Your task to perform on an android device: empty trash in google photos Image 0: 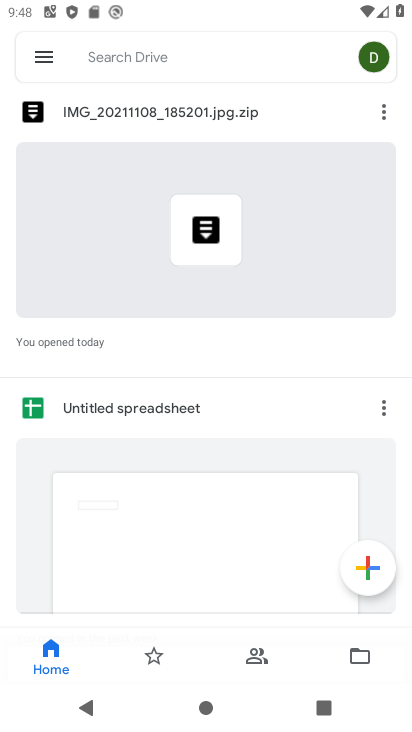
Step 0: press back button
Your task to perform on an android device: empty trash in google photos Image 1: 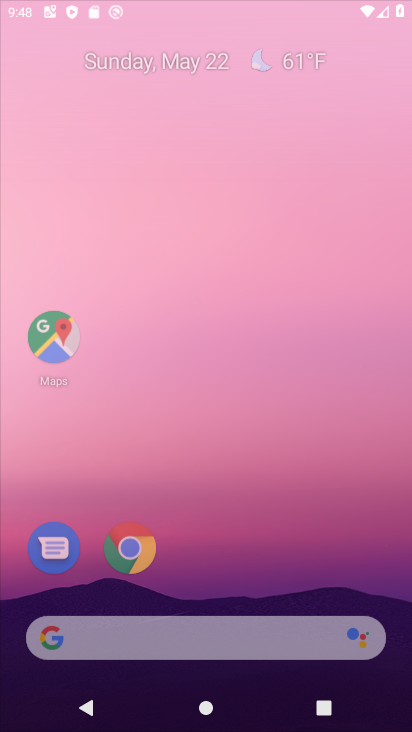
Step 1: press home button
Your task to perform on an android device: empty trash in google photos Image 2: 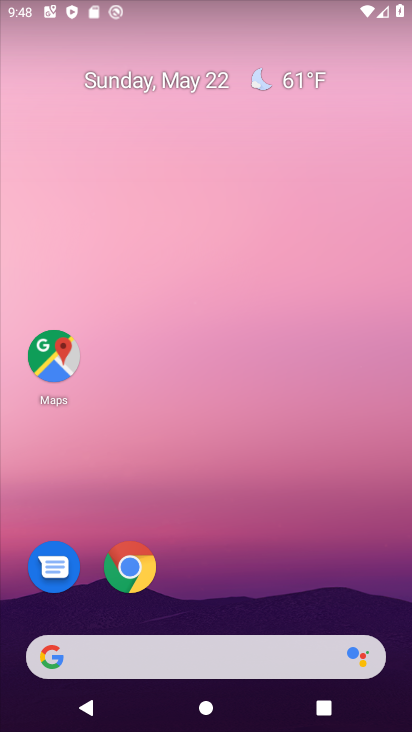
Step 2: drag from (227, 624) to (187, 52)
Your task to perform on an android device: empty trash in google photos Image 3: 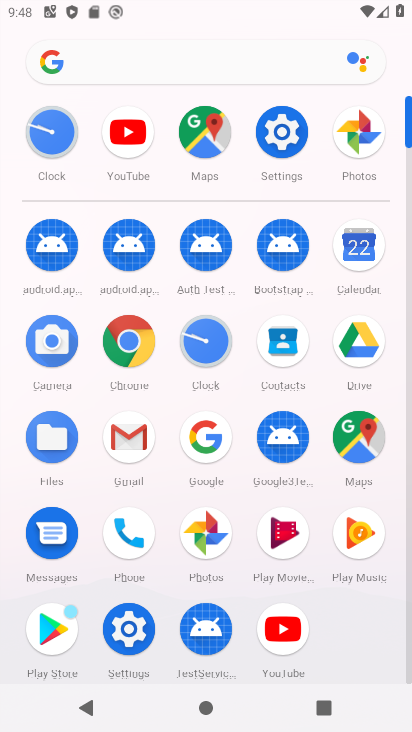
Step 3: click (199, 542)
Your task to perform on an android device: empty trash in google photos Image 4: 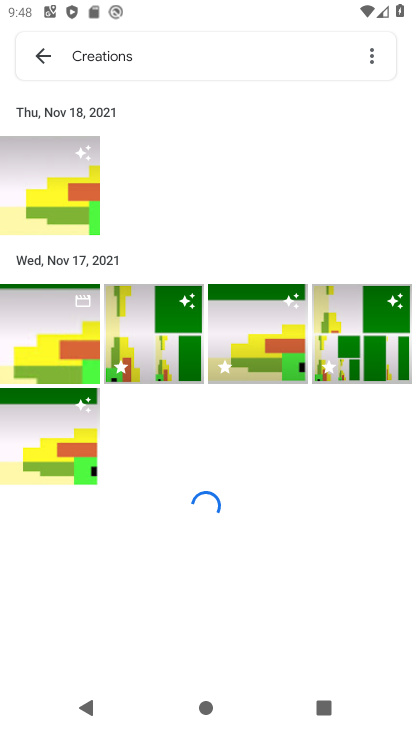
Step 4: click (40, 62)
Your task to perform on an android device: empty trash in google photos Image 5: 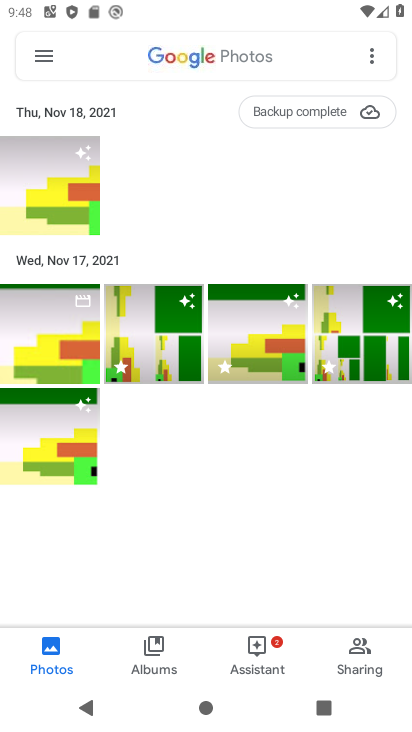
Step 5: click (41, 61)
Your task to perform on an android device: empty trash in google photos Image 6: 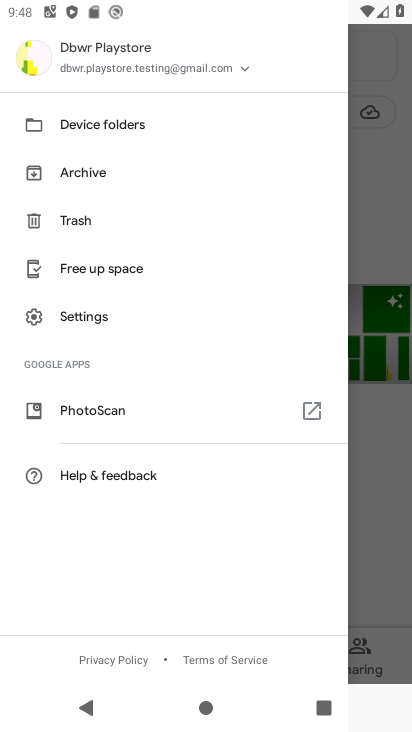
Step 6: click (78, 217)
Your task to perform on an android device: empty trash in google photos Image 7: 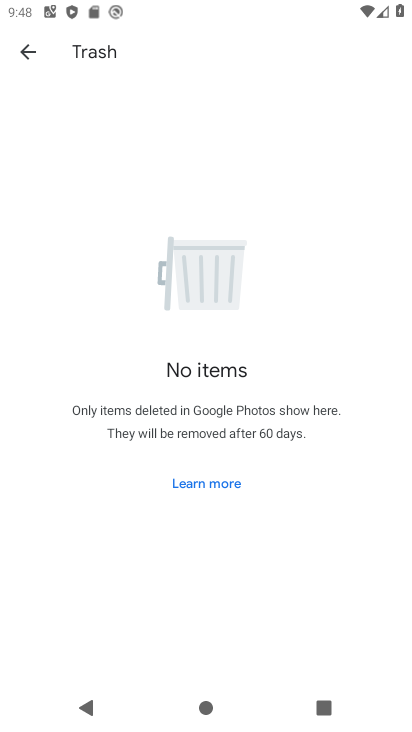
Step 7: task complete